Your task to perform on an android device: turn on the 24-hour format for clock Image 0: 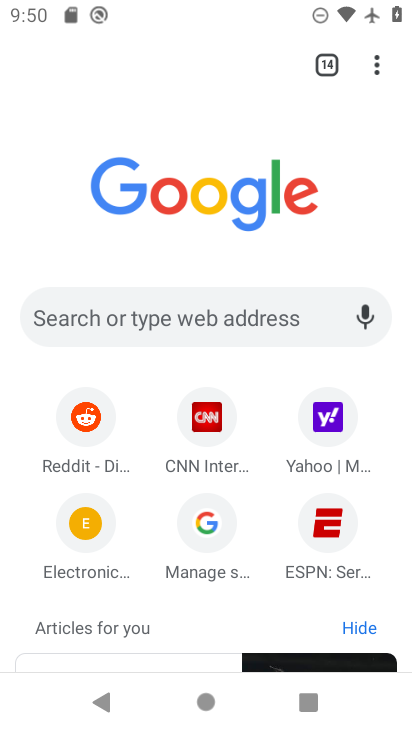
Step 0: press home button
Your task to perform on an android device: turn on the 24-hour format for clock Image 1: 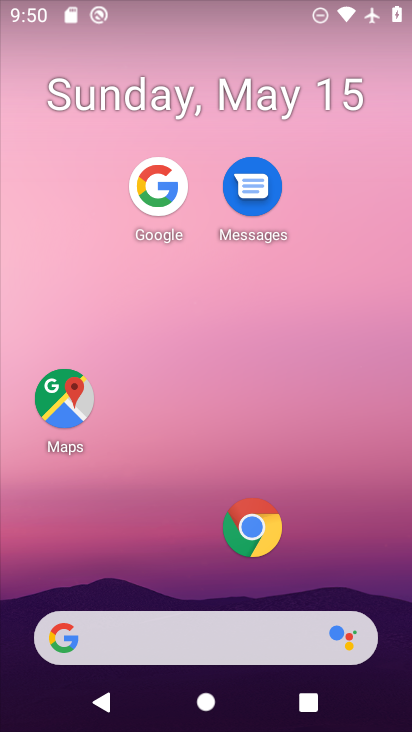
Step 1: drag from (127, 630) to (312, 182)
Your task to perform on an android device: turn on the 24-hour format for clock Image 2: 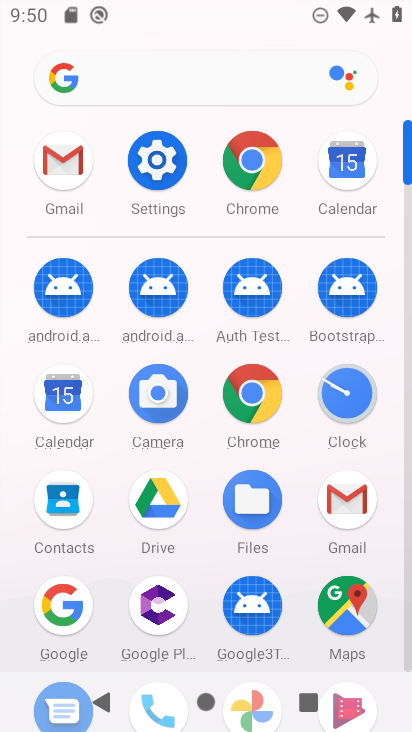
Step 2: click (348, 409)
Your task to perform on an android device: turn on the 24-hour format for clock Image 3: 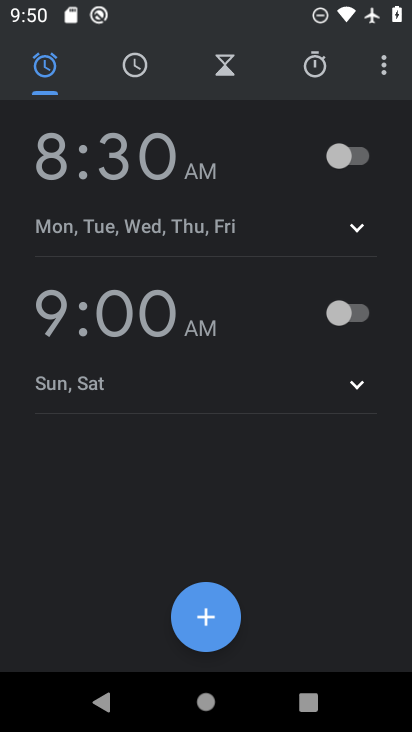
Step 3: click (385, 73)
Your task to perform on an android device: turn on the 24-hour format for clock Image 4: 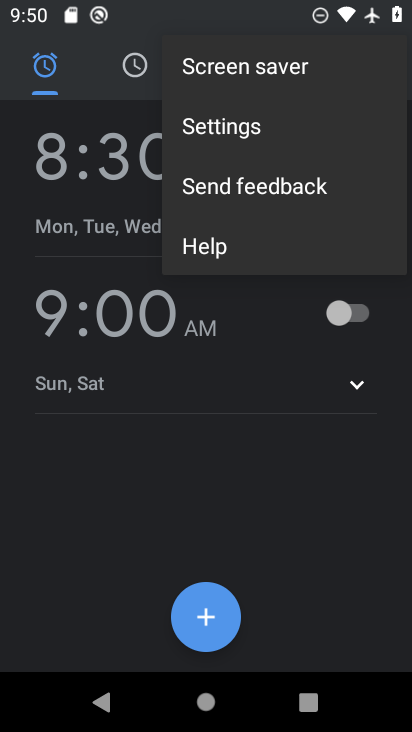
Step 4: click (286, 129)
Your task to perform on an android device: turn on the 24-hour format for clock Image 5: 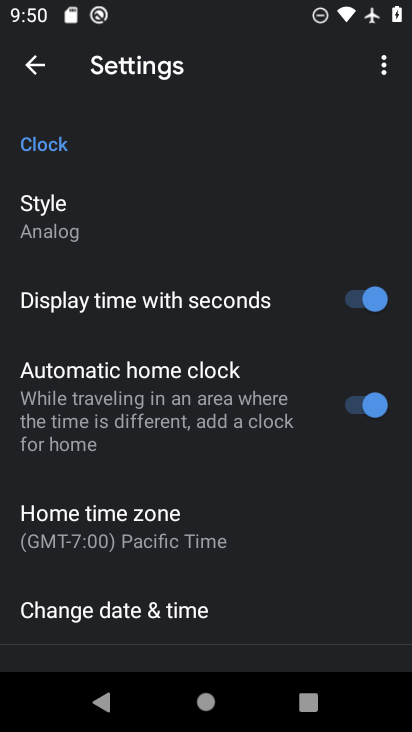
Step 5: drag from (240, 541) to (307, 326)
Your task to perform on an android device: turn on the 24-hour format for clock Image 6: 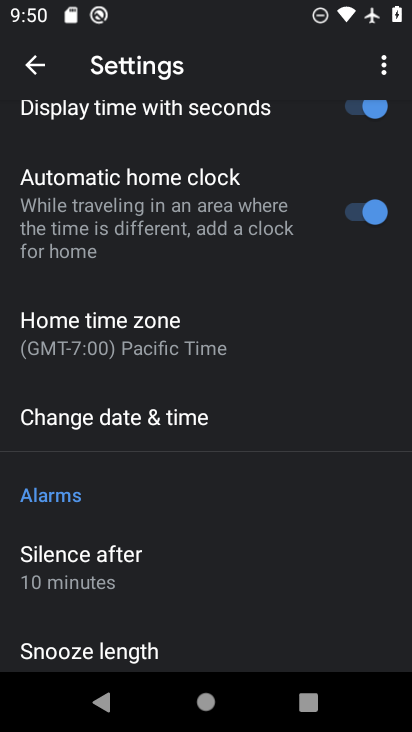
Step 6: click (175, 412)
Your task to perform on an android device: turn on the 24-hour format for clock Image 7: 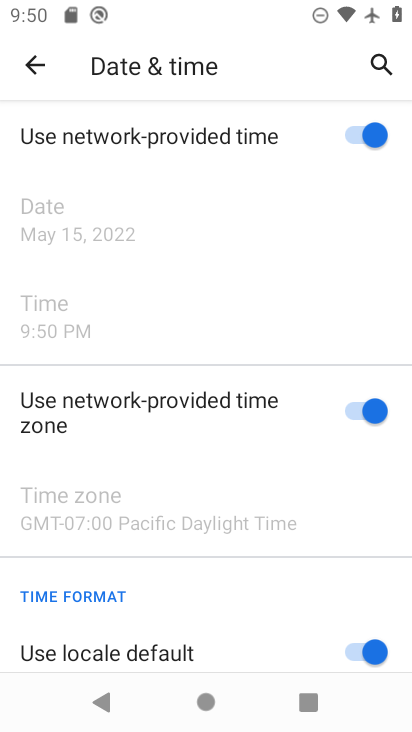
Step 7: drag from (164, 614) to (282, 315)
Your task to perform on an android device: turn on the 24-hour format for clock Image 8: 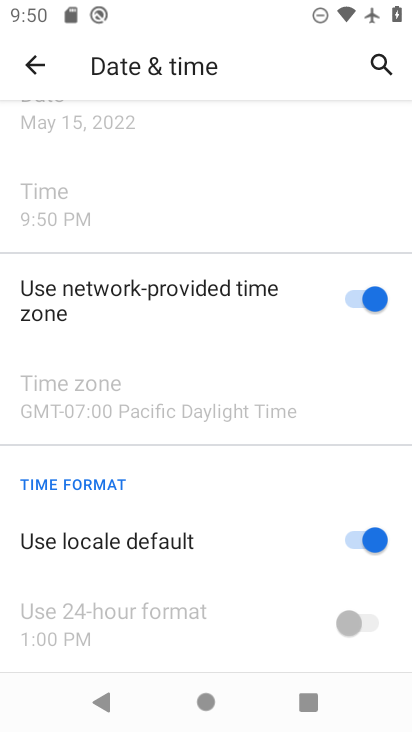
Step 8: click (349, 533)
Your task to perform on an android device: turn on the 24-hour format for clock Image 9: 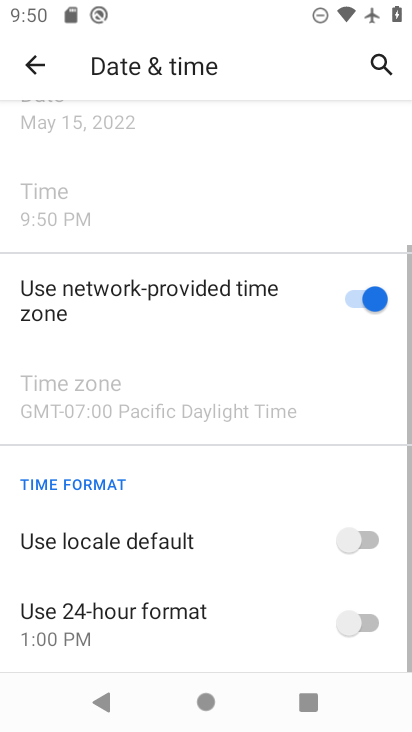
Step 9: click (367, 616)
Your task to perform on an android device: turn on the 24-hour format for clock Image 10: 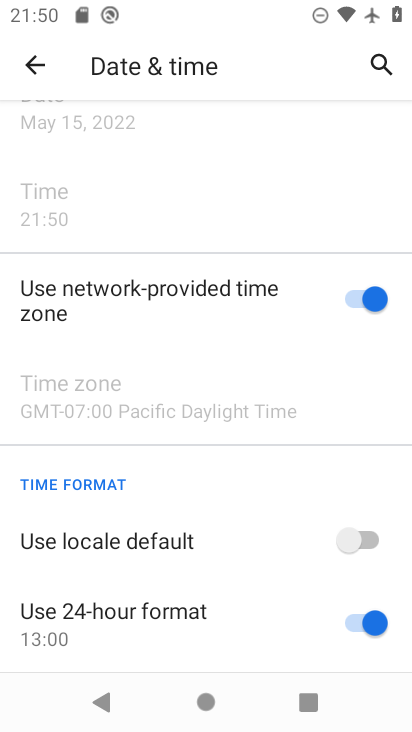
Step 10: task complete